Your task to perform on an android device: Open Chrome and go to settings Image 0: 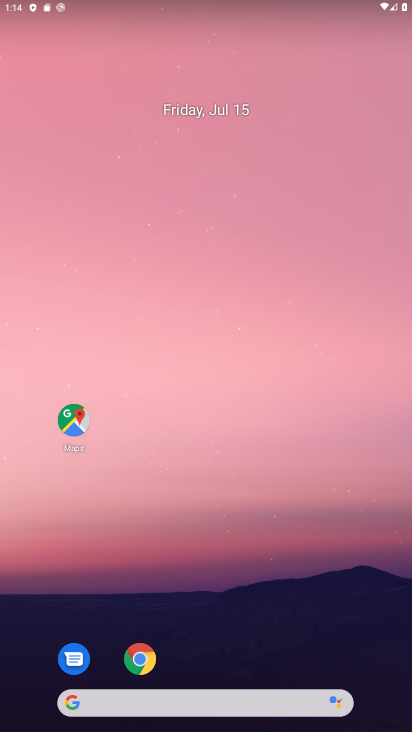
Step 0: drag from (272, 639) to (209, 132)
Your task to perform on an android device: Open Chrome and go to settings Image 1: 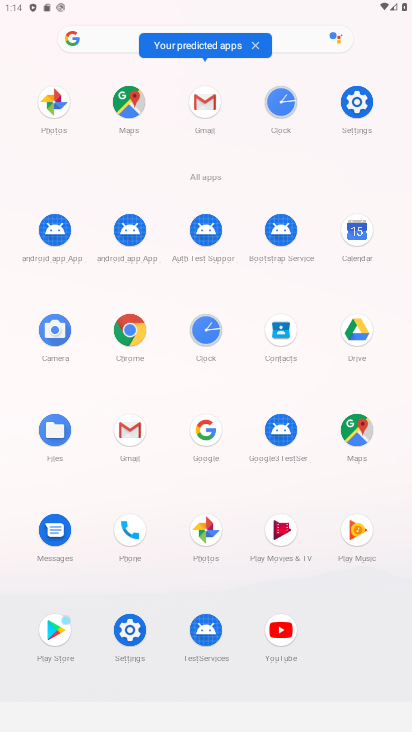
Step 1: click (139, 329)
Your task to perform on an android device: Open Chrome and go to settings Image 2: 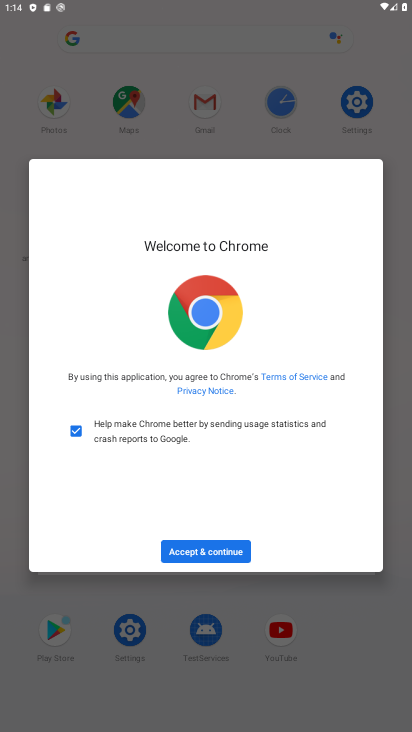
Step 2: click (190, 552)
Your task to perform on an android device: Open Chrome and go to settings Image 3: 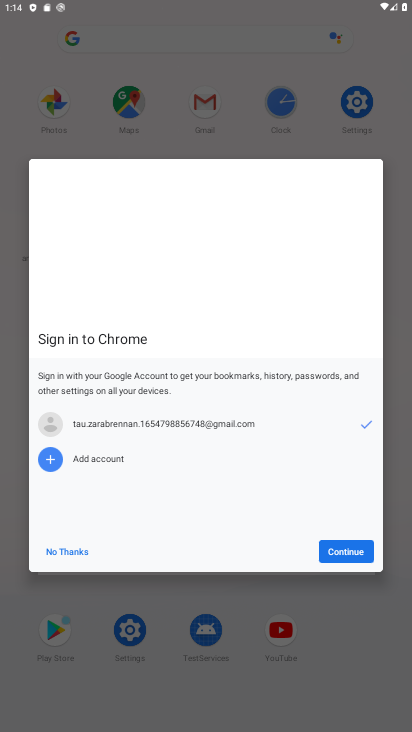
Step 3: click (348, 552)
Your task to perform on an android device: Open Chrome and go to settings Image 4: 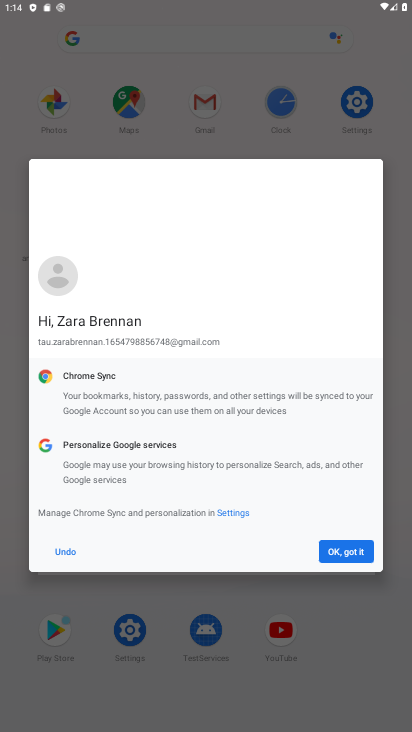
Step 4: click (348, 552)
Your task to perform on an android device: Open Chrome and go to settings Image 5: 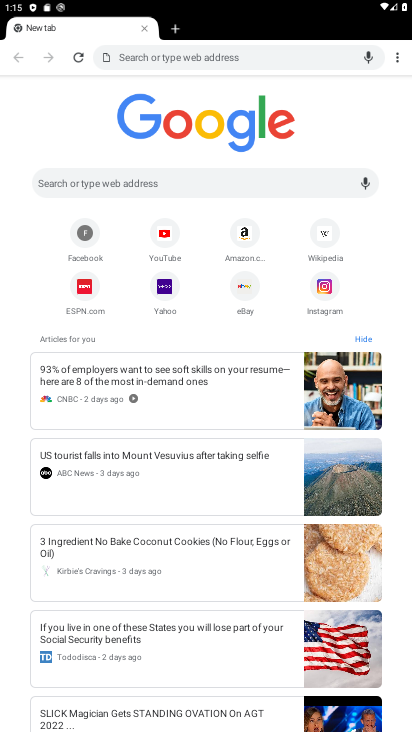
Step 5: click (394, 66)
Your task to perform on an android device: Open Chrome and go to settings Image 6: 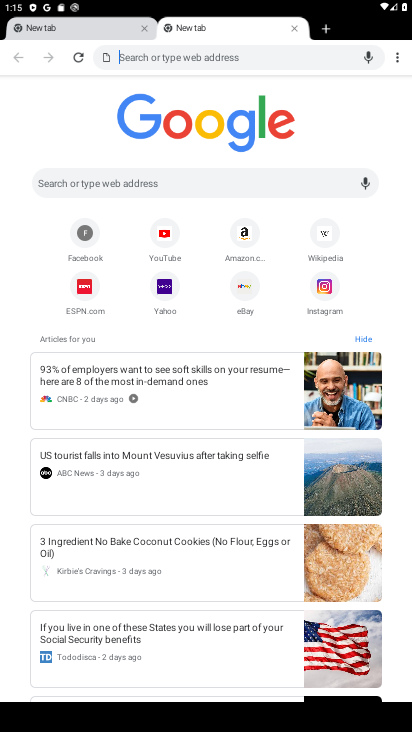
Step 6: click (394, 66)
Your task to perform on an android device: Open Chrome and go to settings Image 7: 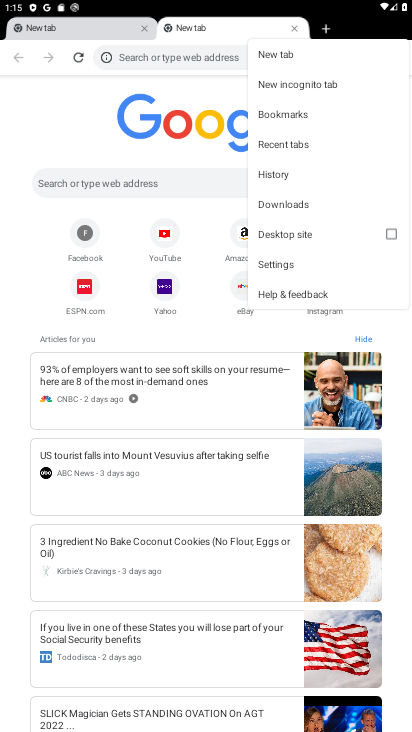
Step 7: click (296, 262)
Your task to perform on an android device: Open Chrome and go to settings Image 8: 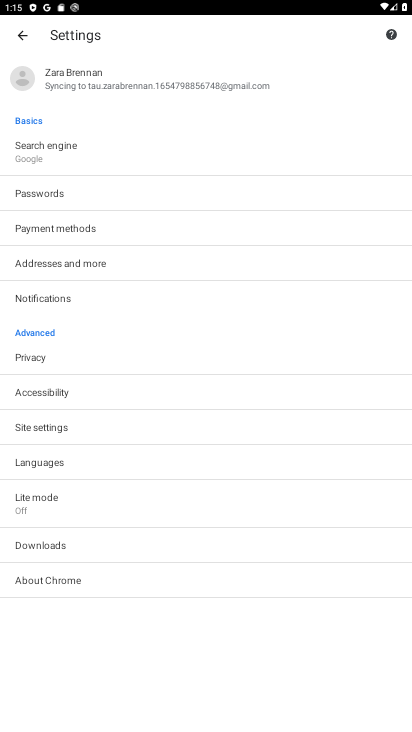
Step 8: task complete